Your task to perform on an android device: What is the recent news? Image 0: 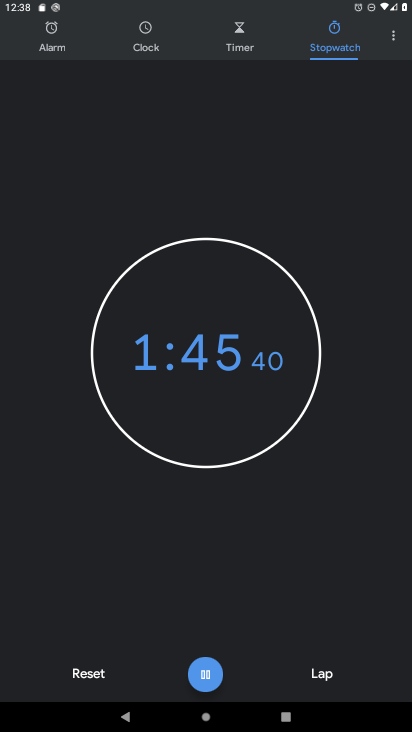
Step 0: press home button
Your task to perform on an android device: What is the recent news? Image 1: 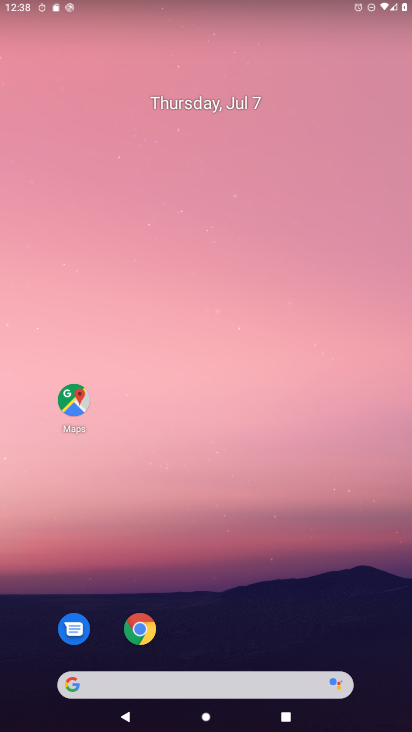
Step 1: drag from (229, 609) to (229, 92)
Your task to perform on an android device: What is the recent news? Image 2: 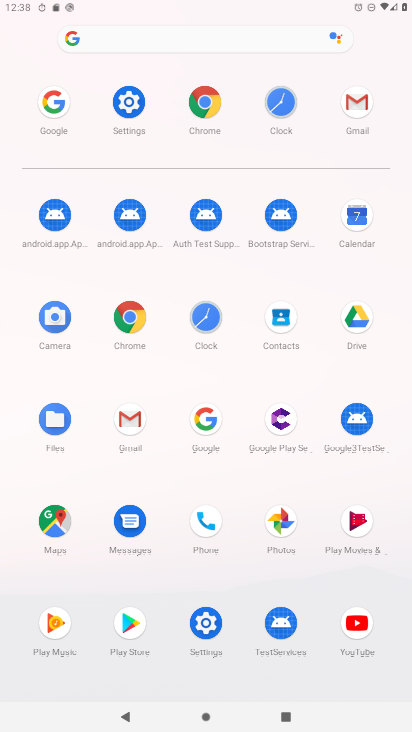
Step 2: click (58, 104)
Your task to perform on an android device: What is the recent news? Image 3: 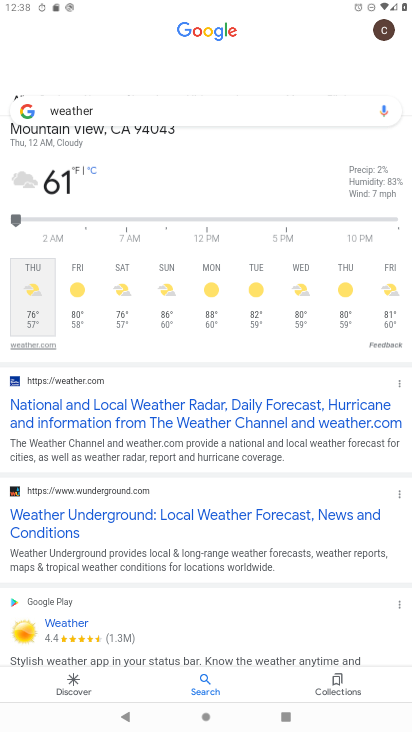
Step 3: click (215, 112)
Your task to perform on an android device: What is the recent news? Image 4: 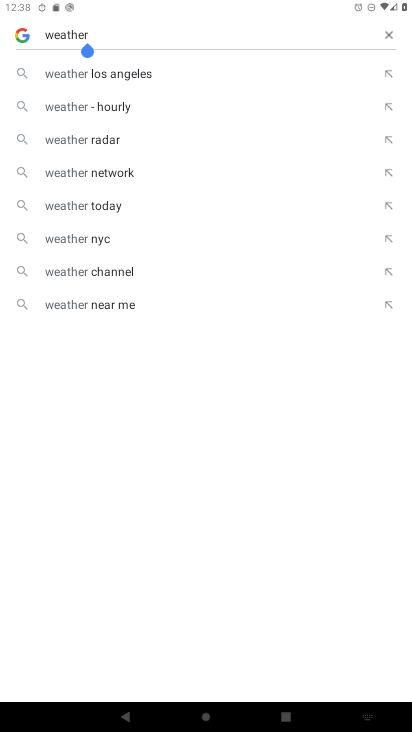
Step 4: click (388, 30)
Your task to perform on an android device: What is the recent news? Image 5: 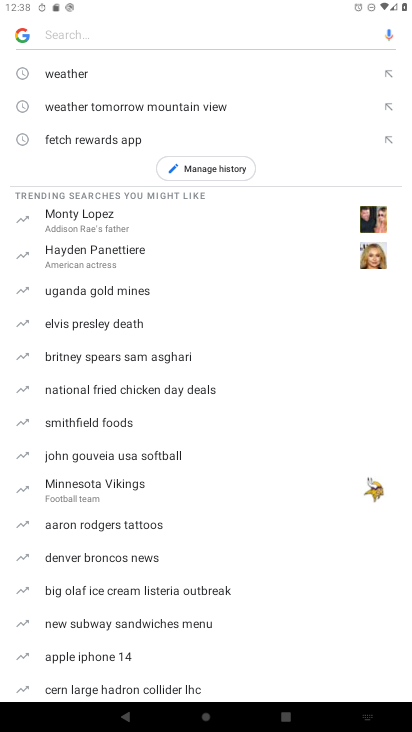
Step 5: click (155, 31)
Your task to perform on an android device: What is the recent news? Image 6: 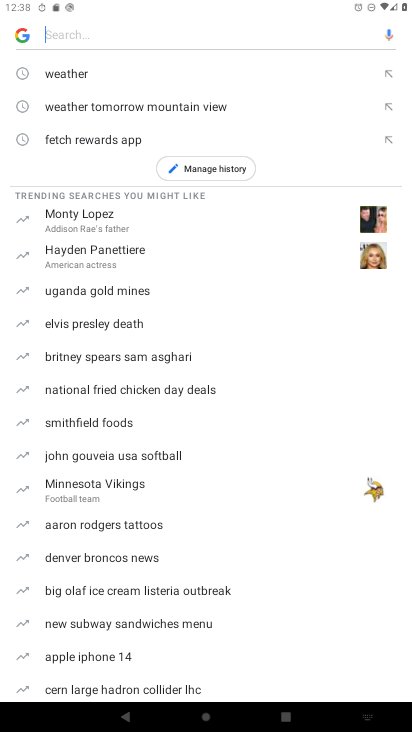
Step 6: type "news"
Your task to perform on an android device: What is the recent news? Image 7: 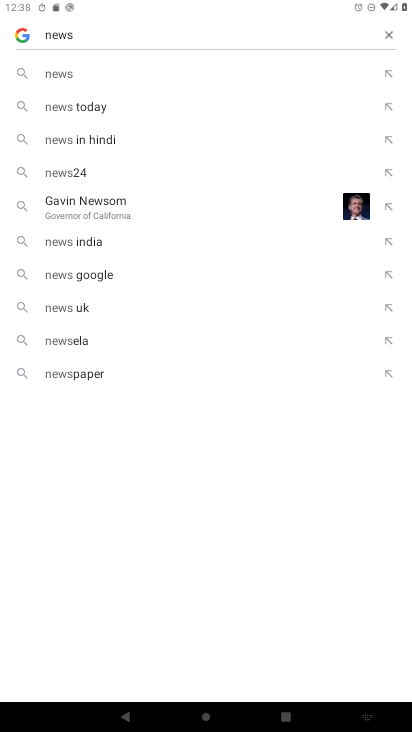
Step 7: click (97, 71)
Your task to perform on an android device: What is the recent news? Image 8: 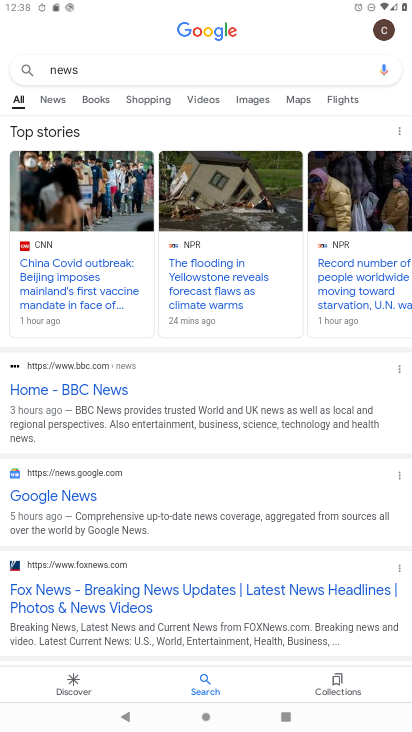
Step 8: click (45, 104)
Your task to perform on an android device: What is the recent news? Image 9: 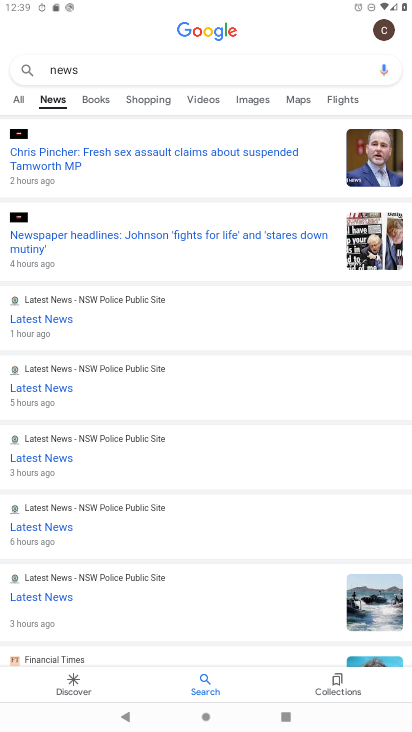
Step 9: task complete